Your task to perform on an android device: What's the weather going to be tomorrow? Image 0: 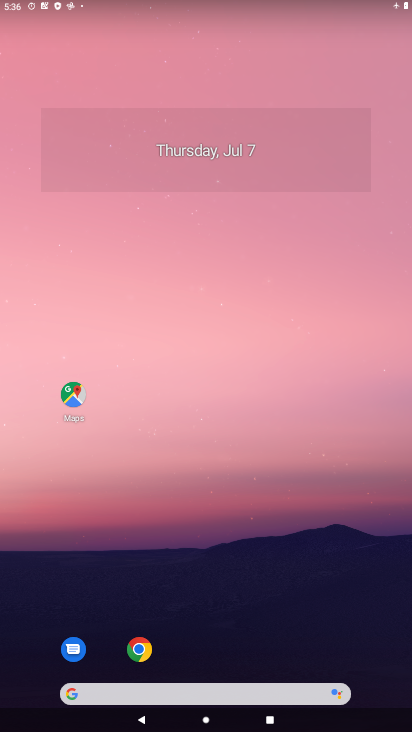
Step 0: drag from (398, 672) to (208, 24)
Your task to perform on an android device: What's the weather going to be tomorrow? Image 1: 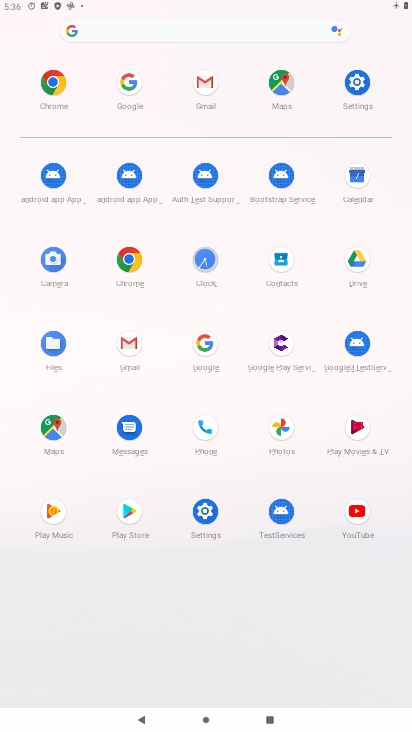
Step 1: click (136, 77)
Your task to perform on an android device: What's the weather going to be tomorrow? Image 2: 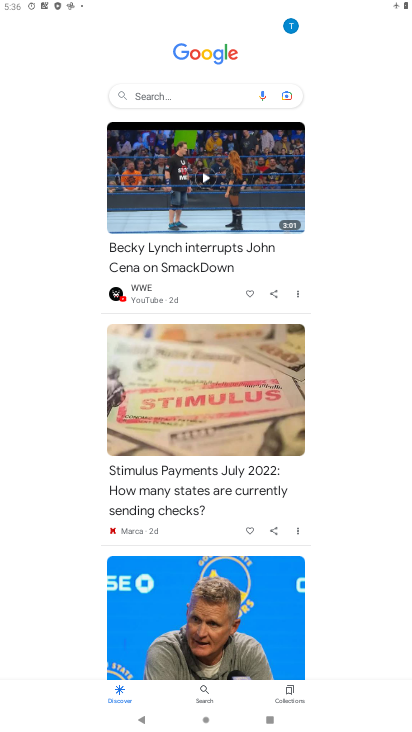
Step 2: drag from (177, 729) to (76, 713)
Your task to perform on an android device: What's the weather going to be tomorrow? Image 3: 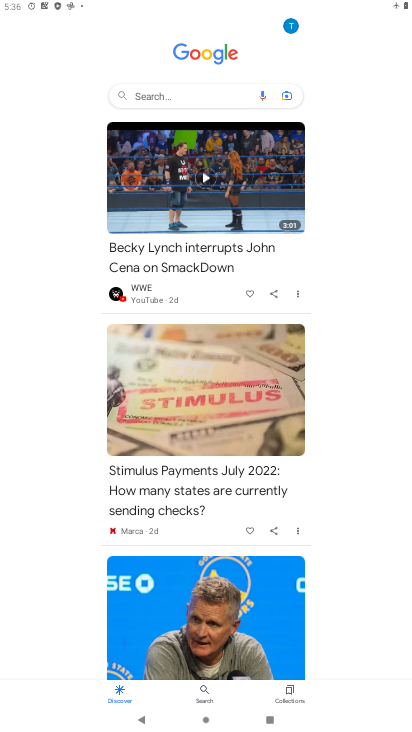
Step 3: click (148, 93)
Your task to perform on an android device: What's the weather going to be tomorrow? Image 4: 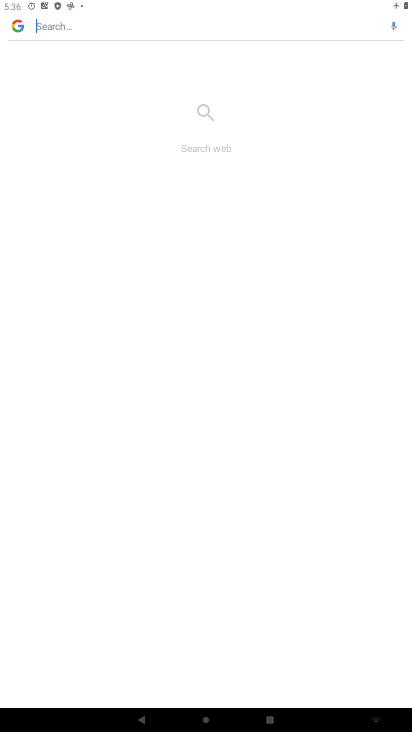
Step 4: type " What's the weather going to be tomorrow?"
Your task to perform on an android device: What's the weather going to be tomorrow? Image 5: 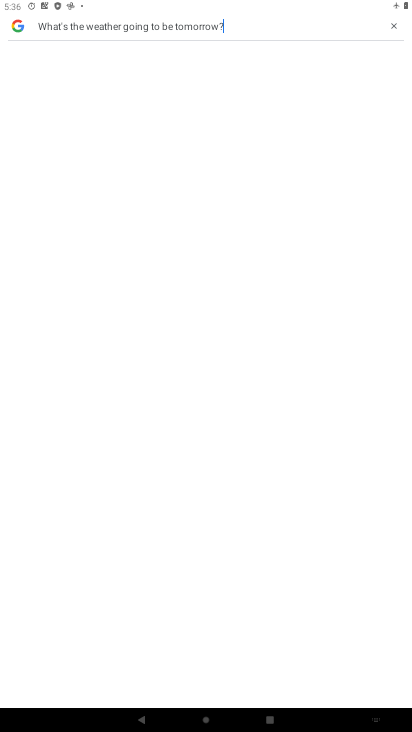
Step 5: task complete